Your task to perform on an android device: Turn off the flashlight Image 0: 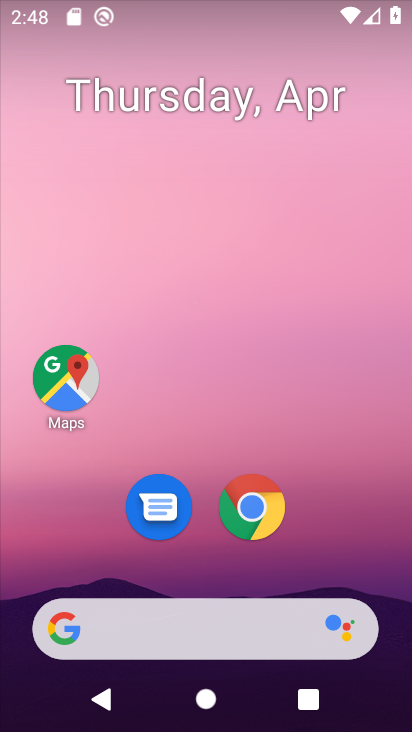
Step 0: click (310, 304)
Your task to perform on an android device: Turn off the flashlight Image 1: 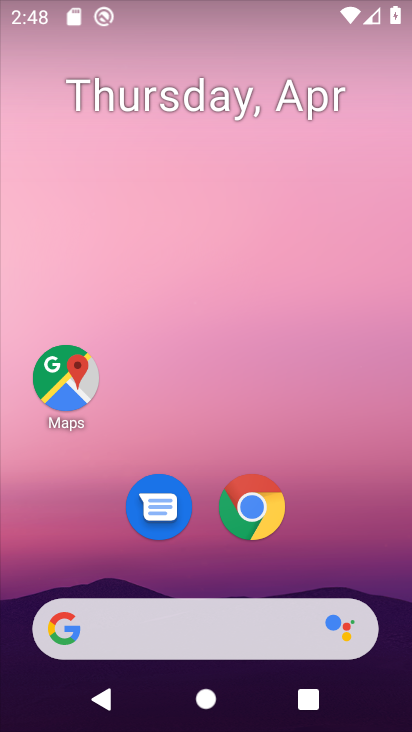
Step 1: drag from (178, 508) to (212, 79)
Your task to perform on an android device: Turn off the flashlight Image 2: 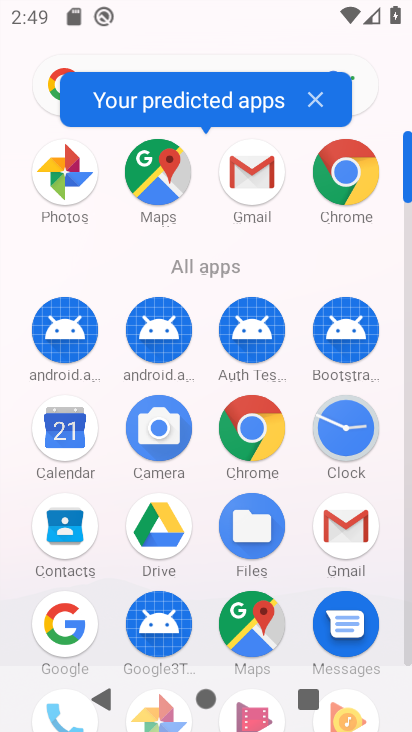
Step 2: drag from (199, 543) to (204, 0)
Your task to perform on an android device: Turn off the flashlight Image 3: 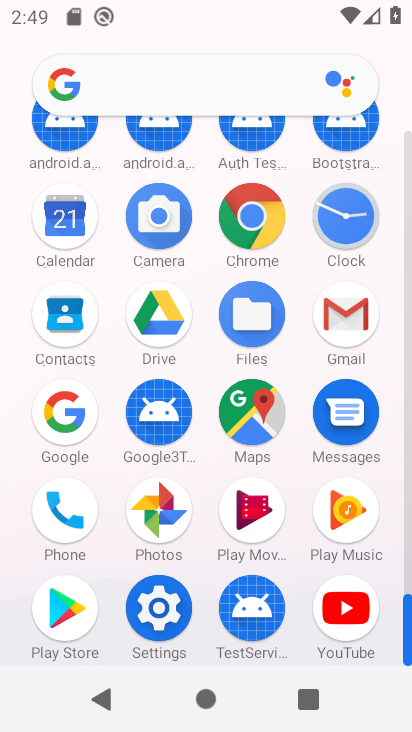
Step 3: click (137, 585)
Your task to perform on an android device: Turn off the flashlight Image 4: 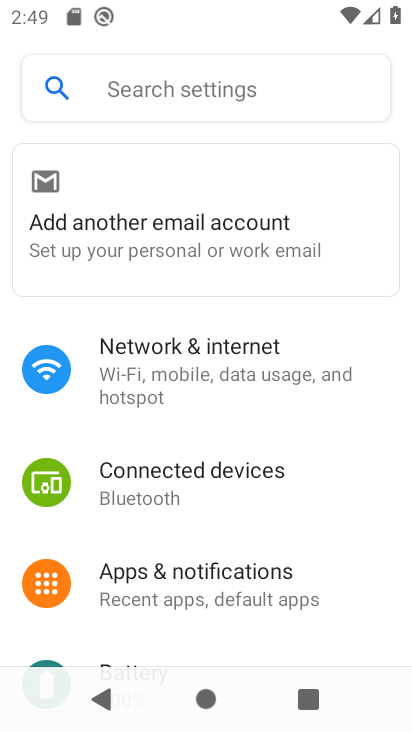
Step 4: click (154, 105)
Your task to perform on an android device: Turn off the flashlight Image 5: 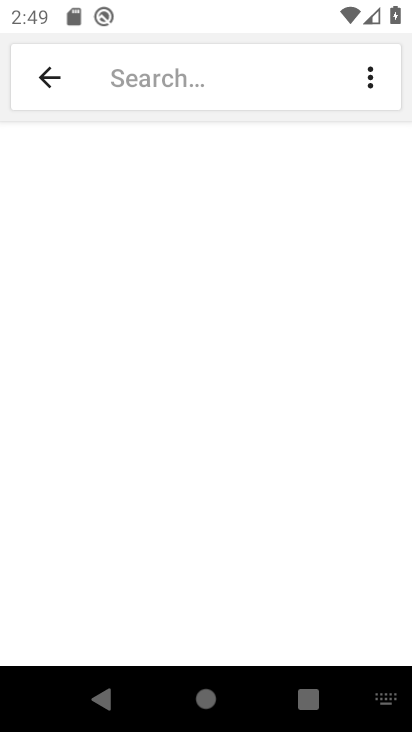
Step 5: type "flashlight"
Your task to perform on an android device: Turn off the flashlight Image 6: 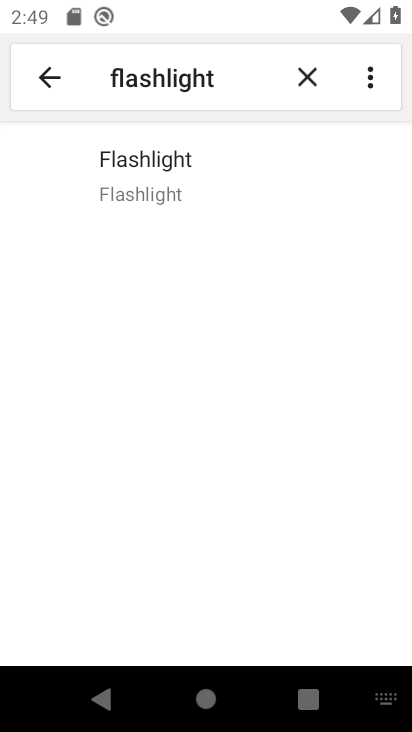
Step 6: click (123, 189)
Your task to perform on an android device: Turn off the flashlight Image 7: 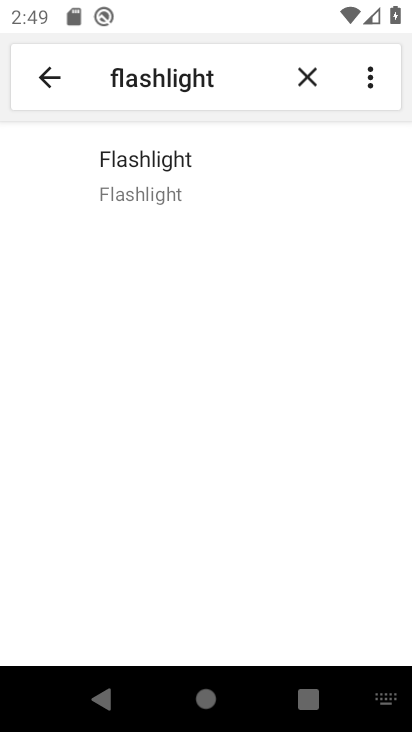
Step 7: click (115, 139)
Your task to perform on an android device: Turn off the flashlight Image 8: 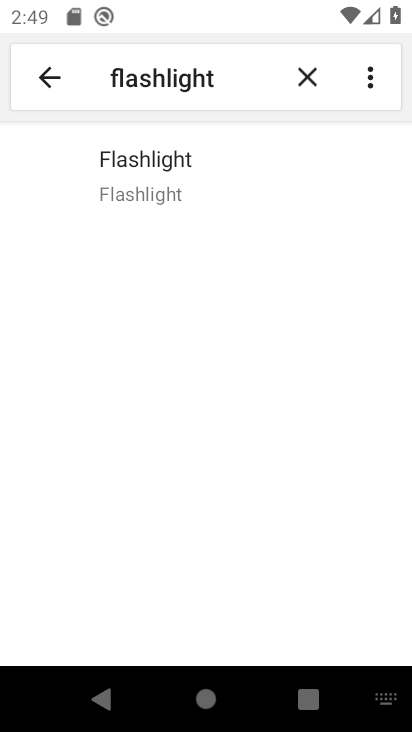
Step 8: click (94, 126)
Your task to perform on an android device: Turn off the flashlight Image 9: 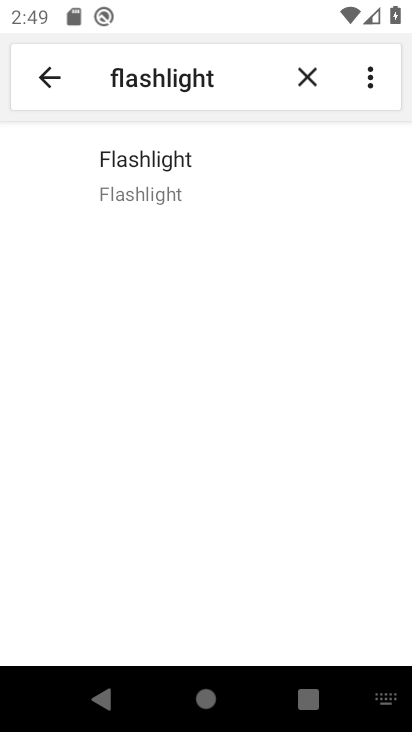
Step 9: task complete